Your task to perform on an android device: Open maps Image 0: 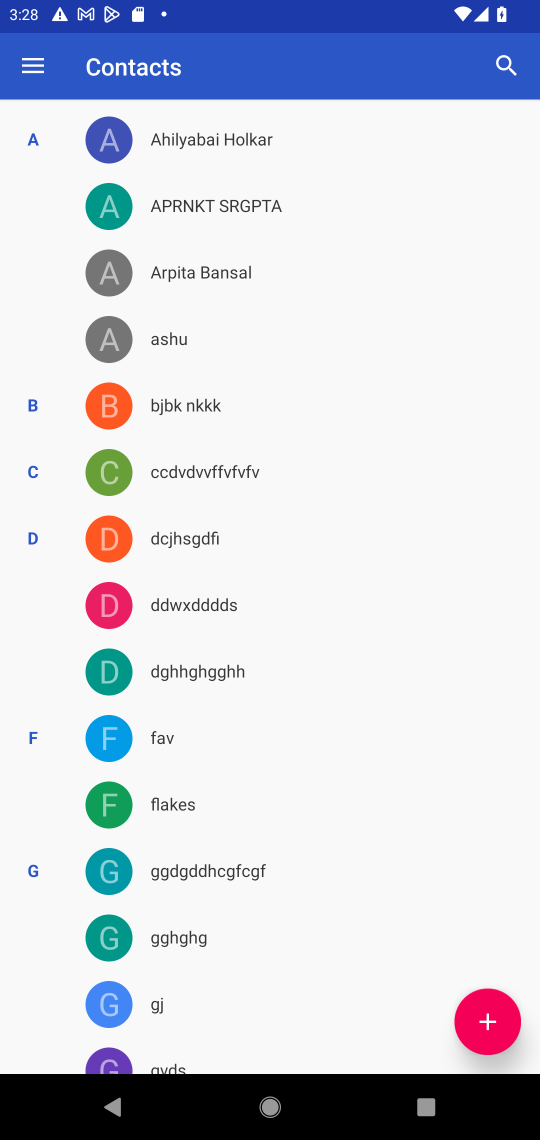
Step 0: press home button
Your task to perform on an android device: Open maps Image 1: 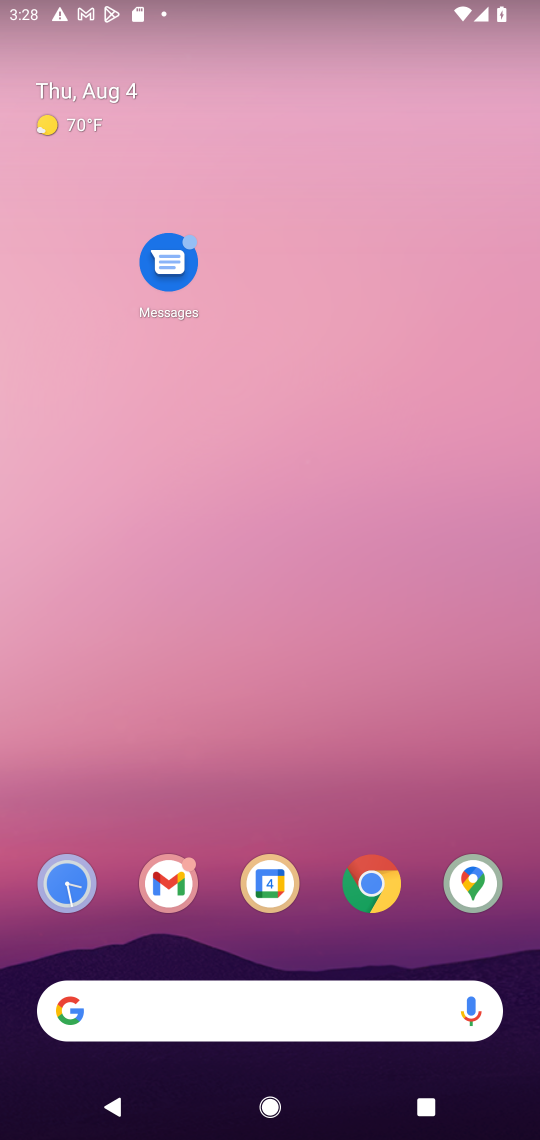
Step 1: drag from (296, 969) to (314, 145)
Your task to perform on an android device: Open maps Image 2: 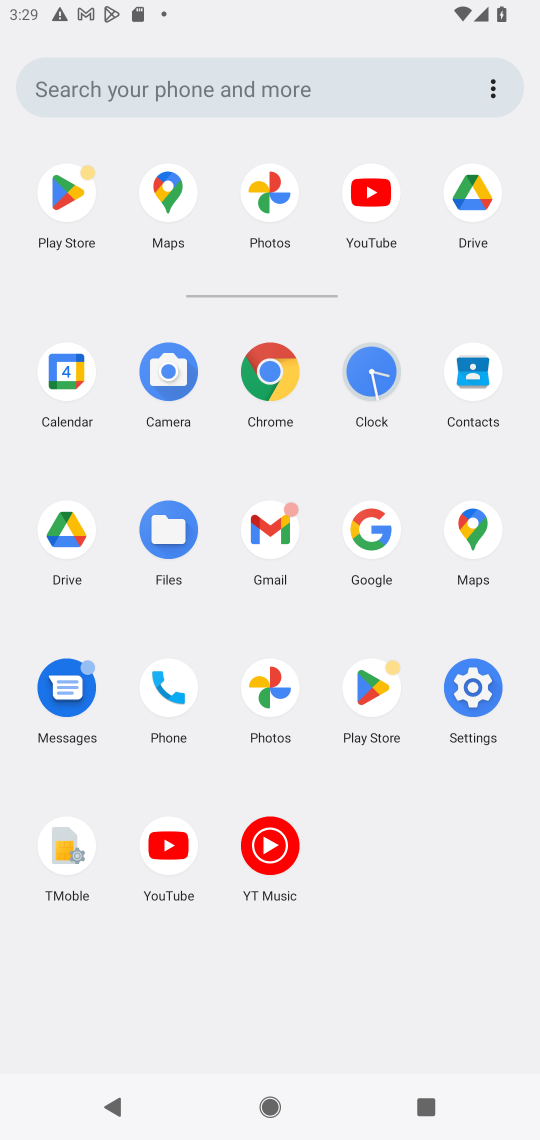
Step 2: click (169, 197)
Your task to perform on an android device: Open maps Image 3: 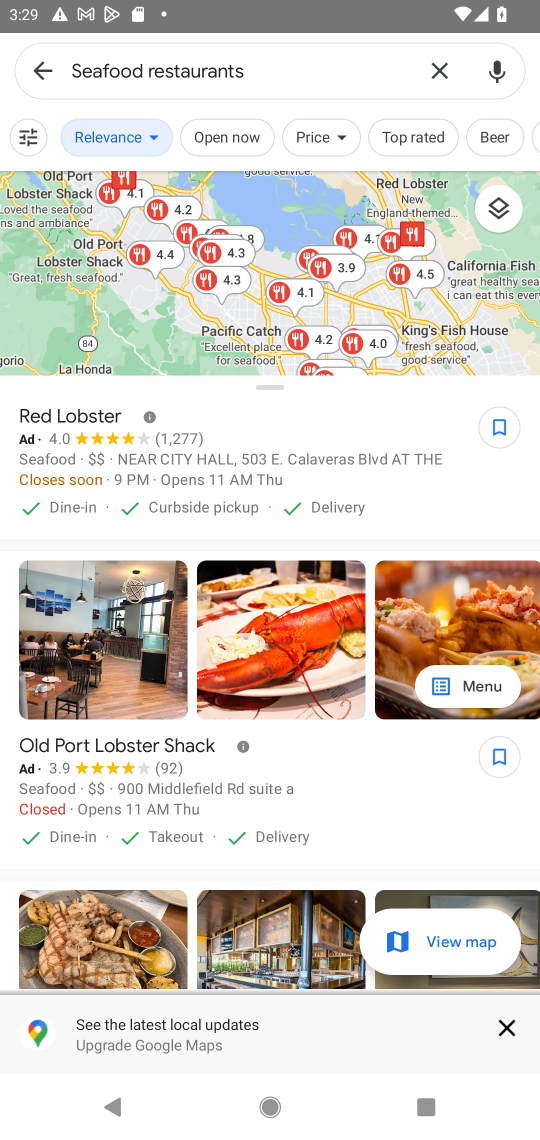
Step 3: task complete